Your task to perform on an android device: open chrome privacy settings Image 0: 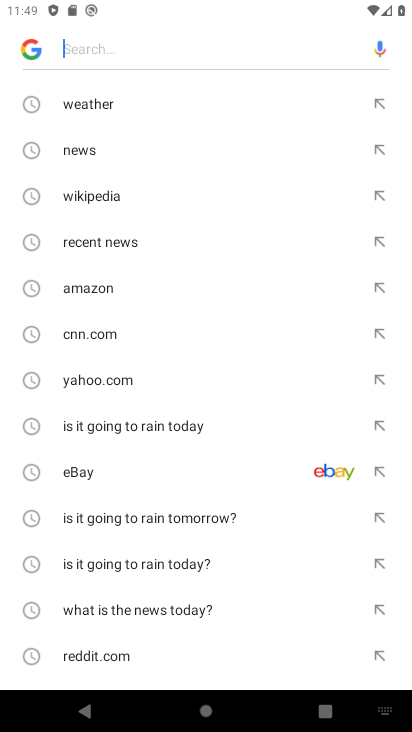
Step 0: press back button
Your task to perform on an android device: open chrome privacy settings Image 1: 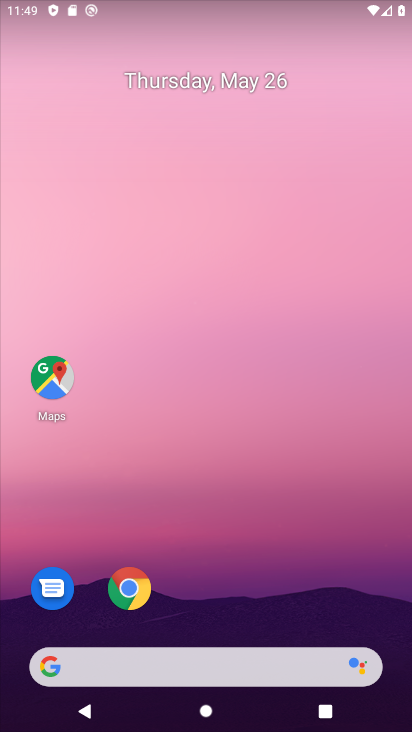
Step 1: click (134, 585)
Your task to perform on an android device: open chrome privacy settings Image 2: 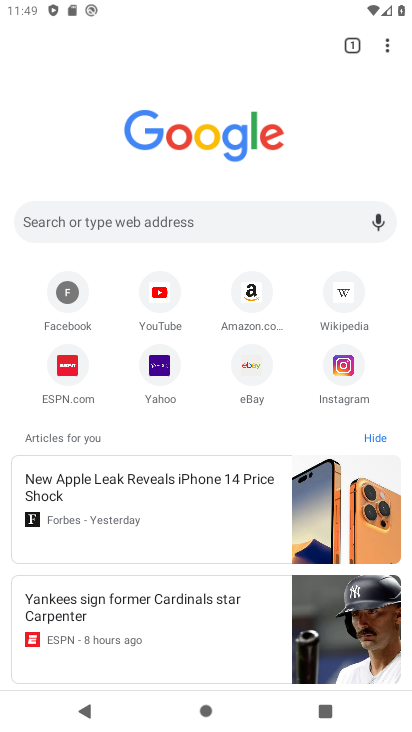
Step 2: click (390, 34)
Your task to perform on an android device: open chrome privacy settings Image 3: 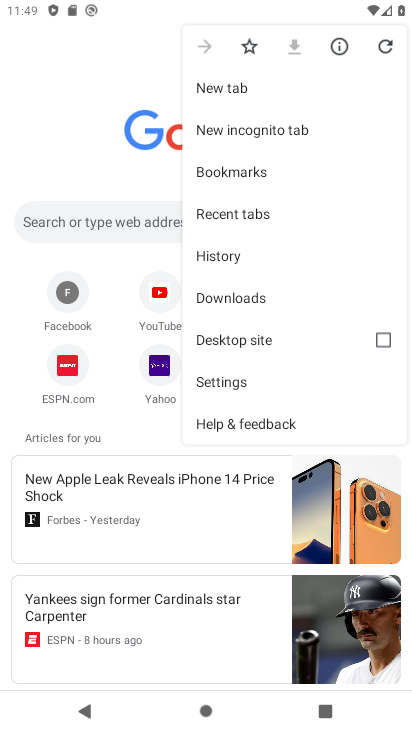
Step 3: click (242, 385)
Your task to perform on an android device: open chrome privacy settings Image 4: 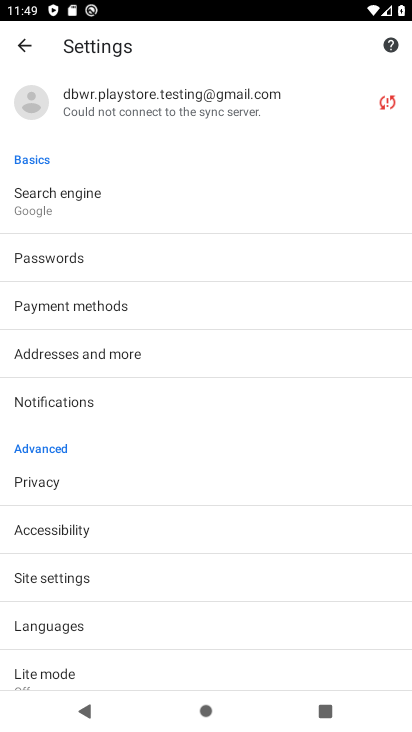
Step 4: click (103, 482)
Your task to perform on an android device: open chrome privacy settings Image 5: 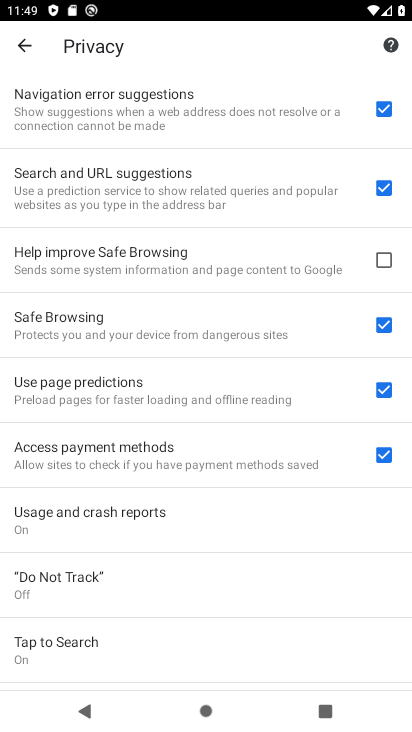
Step 5: task complete